Your task to perform on an android device: turn off translation in the chrome app Image 0: 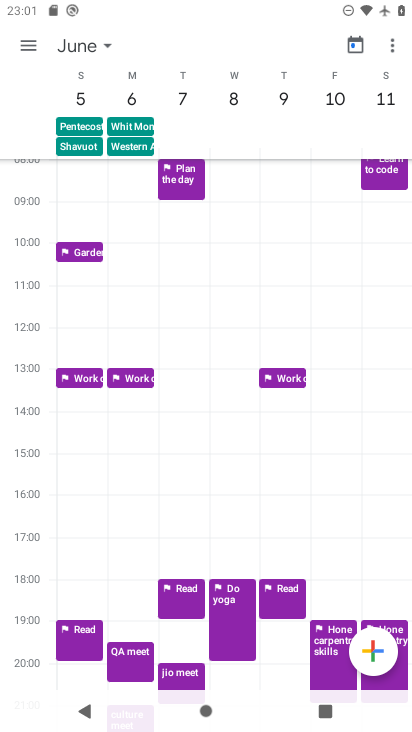
Step 0: press home button
Your task to perform on an android device: turn off translation in the chrome app Image 1: 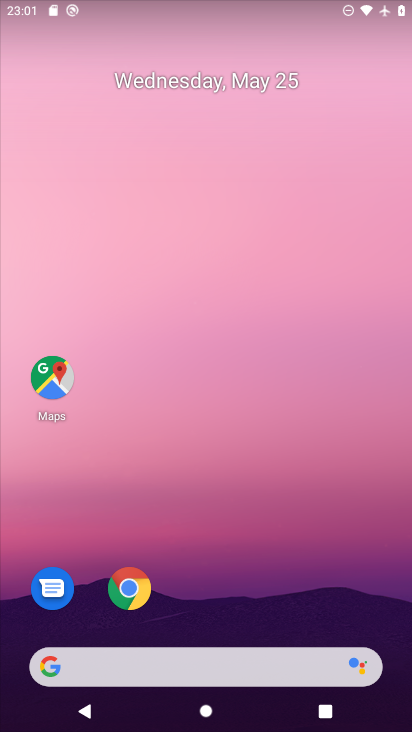
Step 1: click (126, 589)
Your task to perform on an android device: turn off translation in the chrome app Image 2: 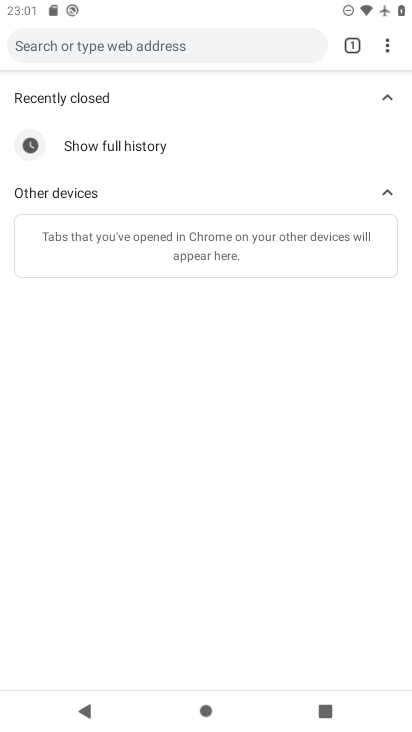
Step 2: press home button
Your task to perform on an android device: turn off translation in the chrome app Image 3: 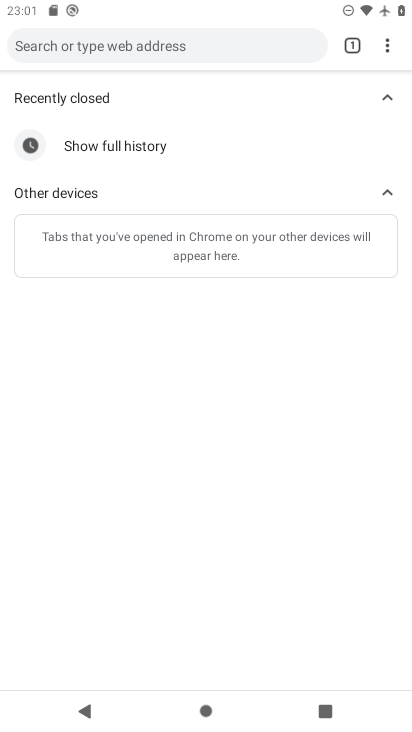
Step 3: press home button
Your task to perform on an android device: turn off translation in the chrome app Image 4: 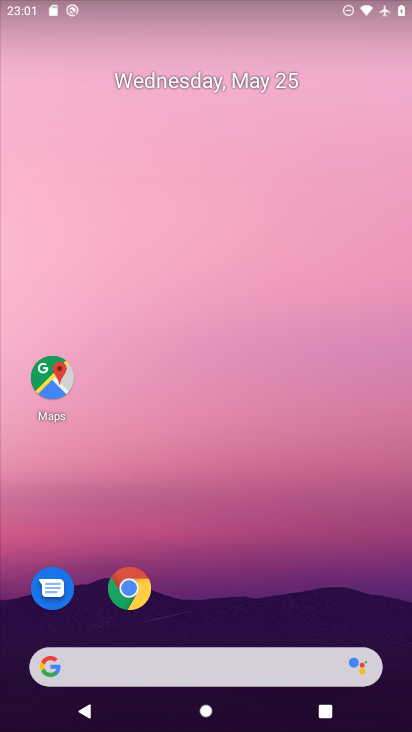
Step 4: drag from (256, 568) to (303, 158)
Your task to perform on an android device: turn off translation in the chrome app Image 5: 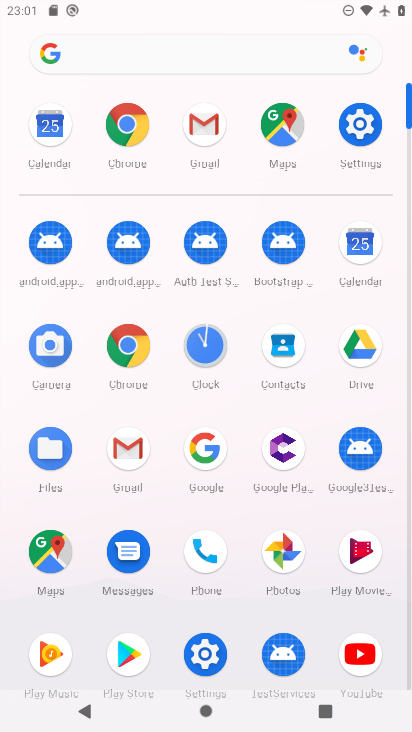
Step 5: click (130, 356)
Your task to perform on an android device: turn off translation in the chrome app Image 6: 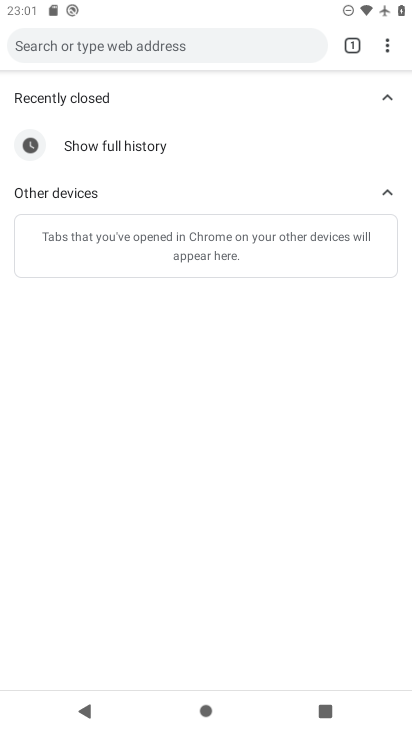
Step 6: drag from (388, 42) to (219, 378)
Your task to perform on an android device: turn off translation in the chrome app Image 7: 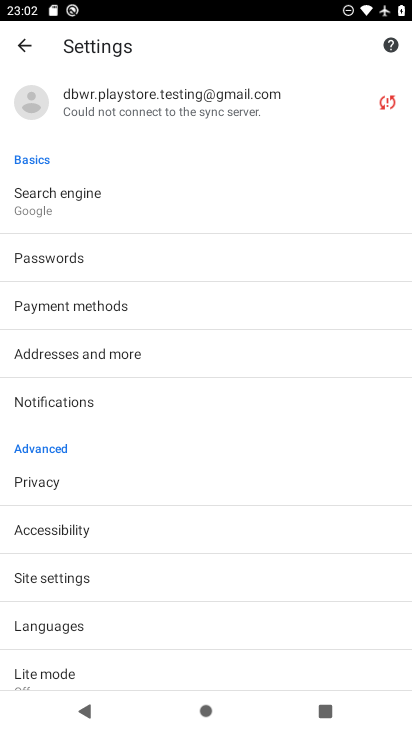
Step 7: drag from (103, 596) to (153, 346)
Your task to perform on an android device: turn off translation in the chrome app Image 8: 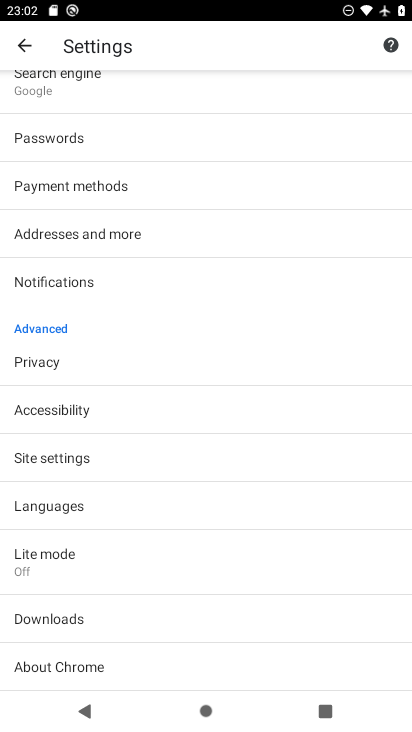
Step 8: click (75, 566)
Your task to perform on an android device: turn off translation in the chrome app Image 9: 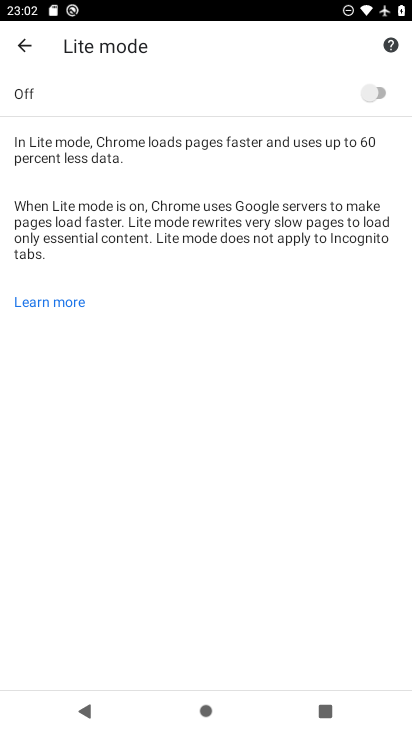
Step 9: task complete